Your task to perform on an android device: Show me popular games on the Play Store Image 0: 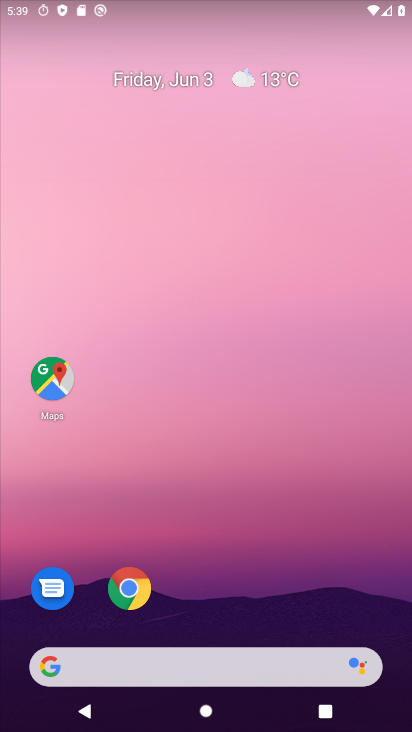
Step 0: drag from (263, 617) to (267, 204)
Your task to perform on an android device: Show me popular games on the Play Store Image 1: 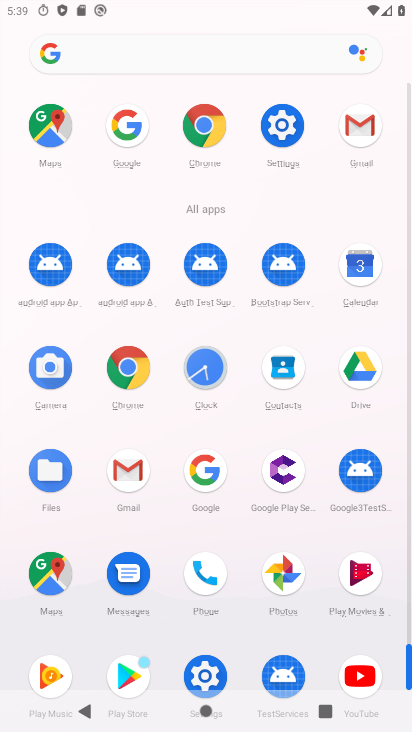
Step 1: drag from (241, 218) to (235, 23)
Your task to perform on an android device: Show me popular games on the Play Store Image 2: 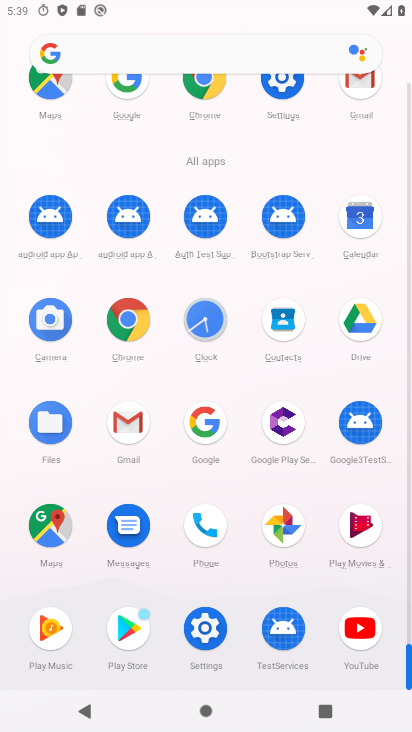
Step 2: click (130, 635)
Your task to perform on an android device: Show me popular games on the Play Store Image 3: 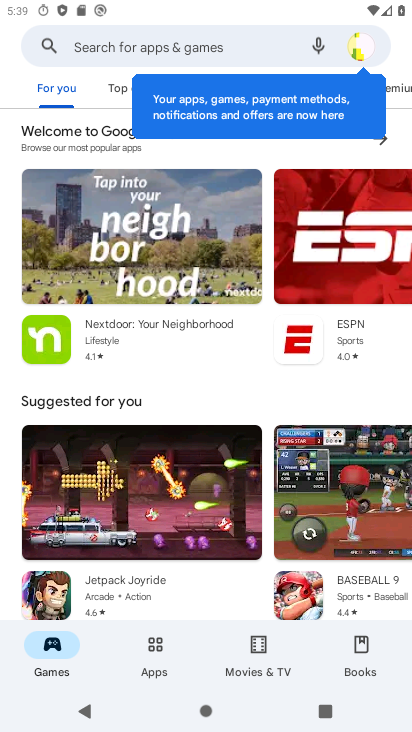
Step 3: drag from (172, 241) to (177, 549)
Your task to perform on an android device: Show me popular games on the Play Store Image 4: 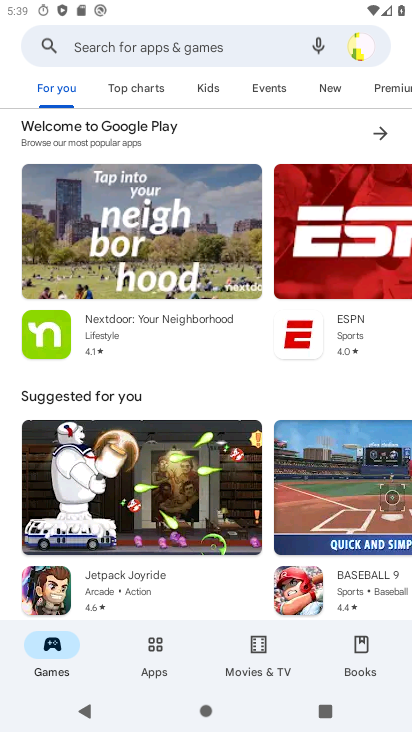
Step 4: click (149, 90)
Your task to perform on an android device: Show me popular games on the Play Store Image 5: 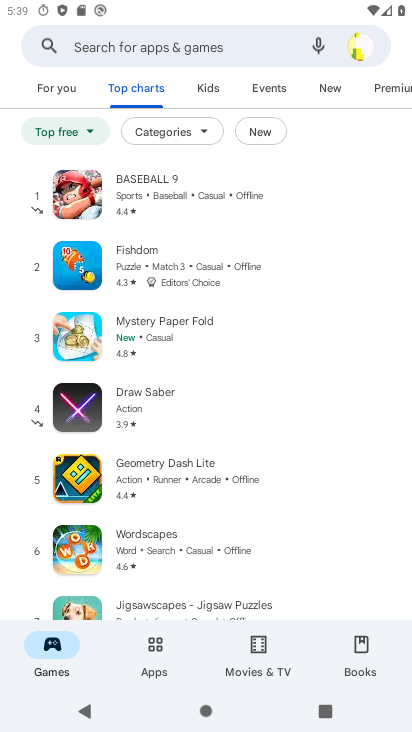
Step 5: task complete